Your task to perform on an android device: add a contact in the contacts app Image 0: 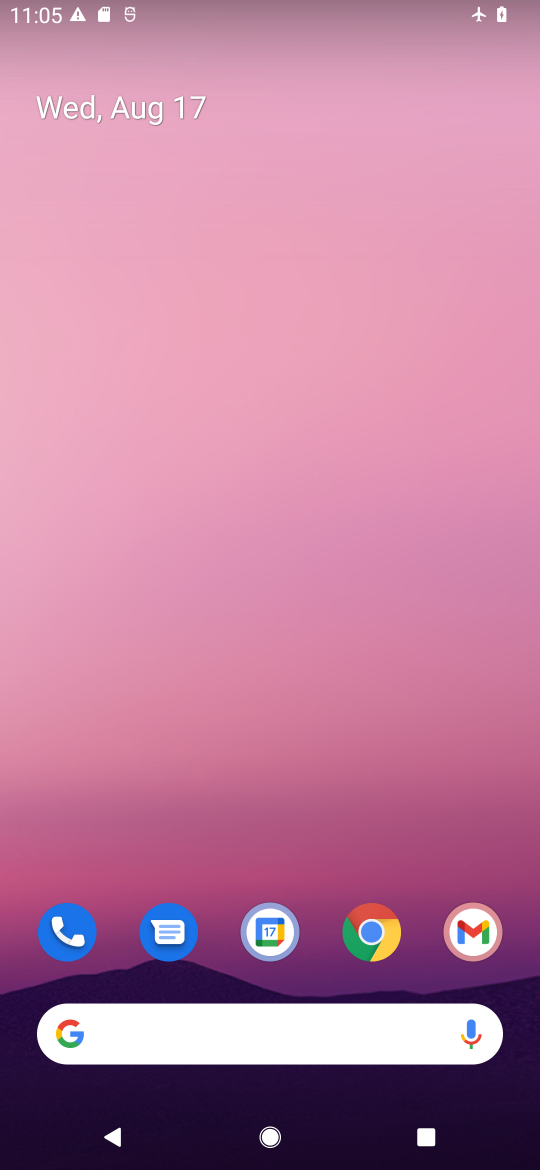
Step 0: drag from (267, 831) to (279, 221)
Your task to perform on an android device: add a contact in the contacts app Image 1: 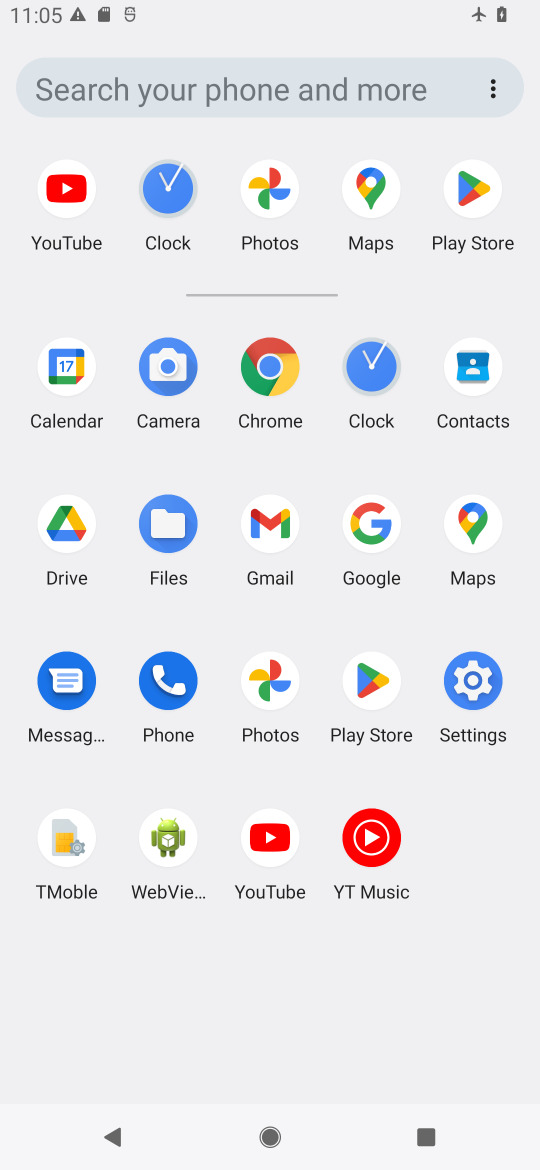
Step 1: click (477, 370)
Your task to perform on an android device: add a contact in the contacts app Image 2: 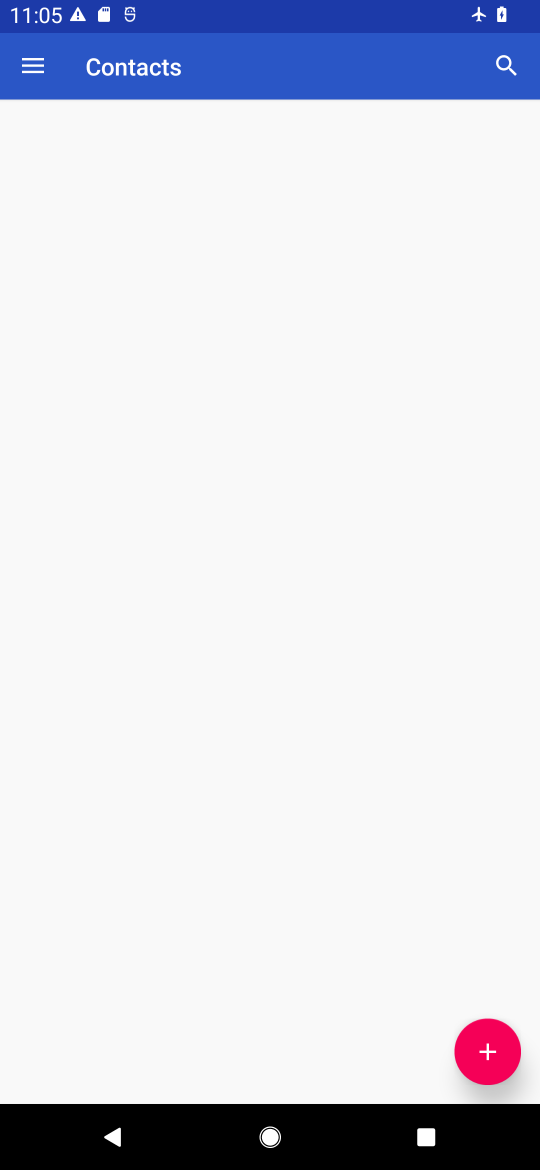
Step 2: click (489, 1061)
Your task to perform on an android device: add a contact in the contacts app Image 3: 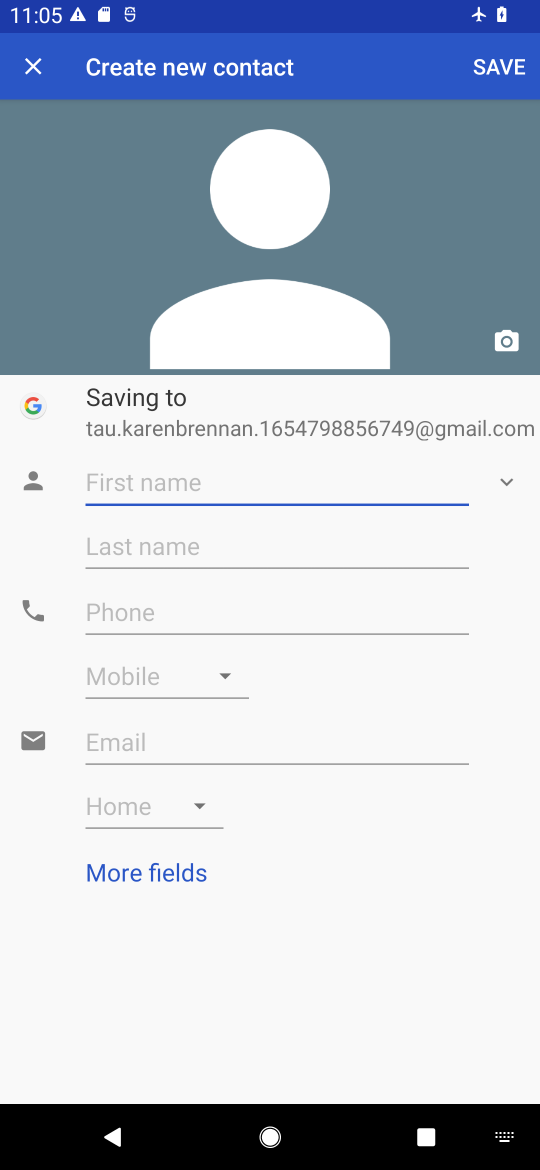
Step 3: type "jffh"
Your task to perform on an android device: add a contact in the contacts app Image 4: 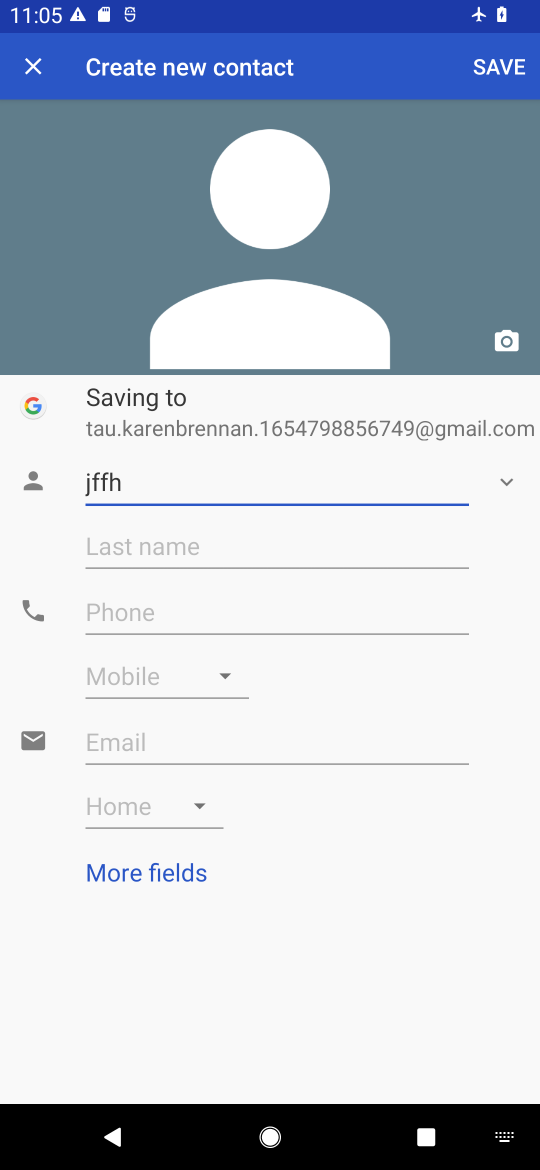
Step 4: click (85, 630)
Your task to perform on an android device: add a contact in the contacts app Image 5: 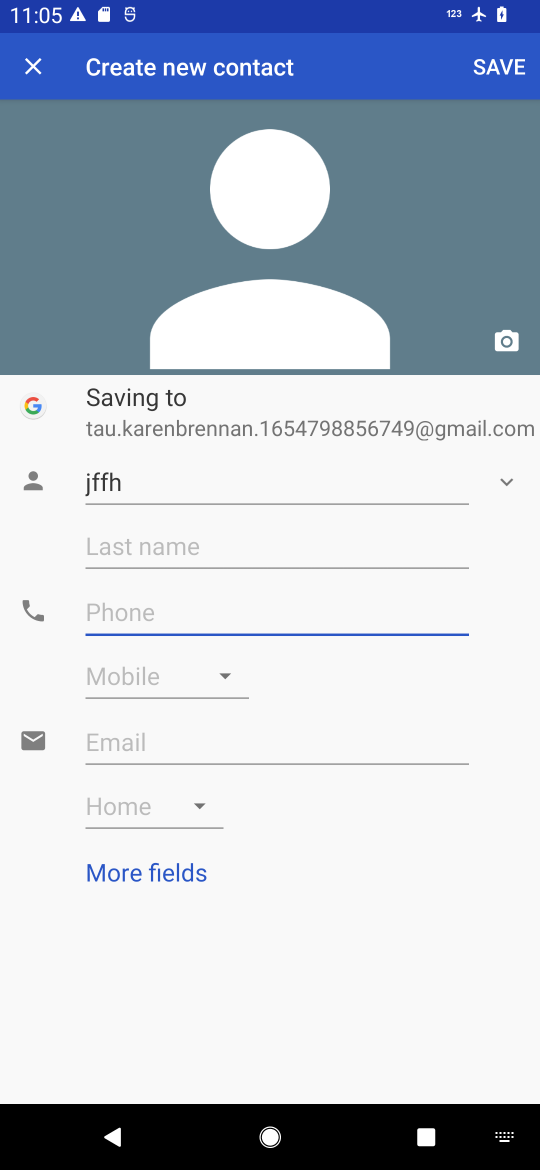
Step 5: type "86586575656"
Your task to perform on an android device: add a contact in the contacts app Image 6: 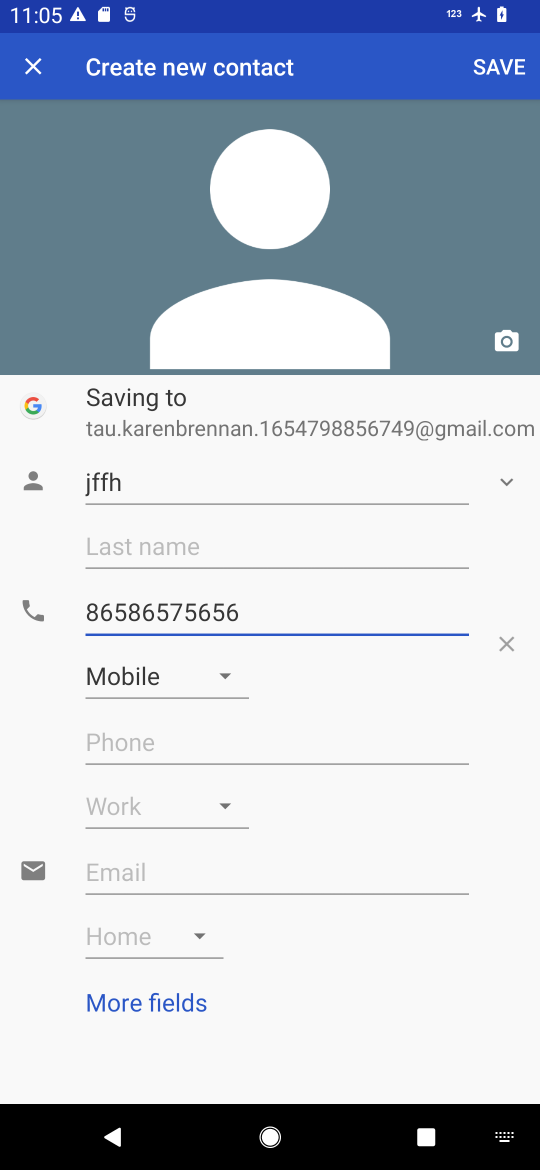
Step 6: click (481, 63)
Your task to perform on an android device: add a contact in the contacts app Image 7: 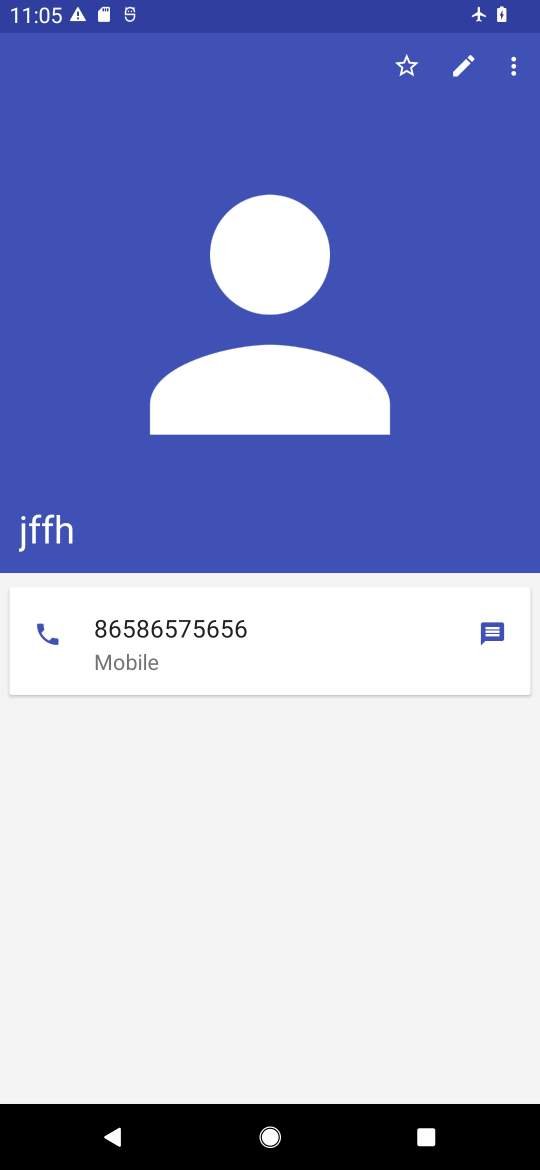
Step 7: task complete